Your task to perform on an android device: turn on bluetooth scan Image 0: 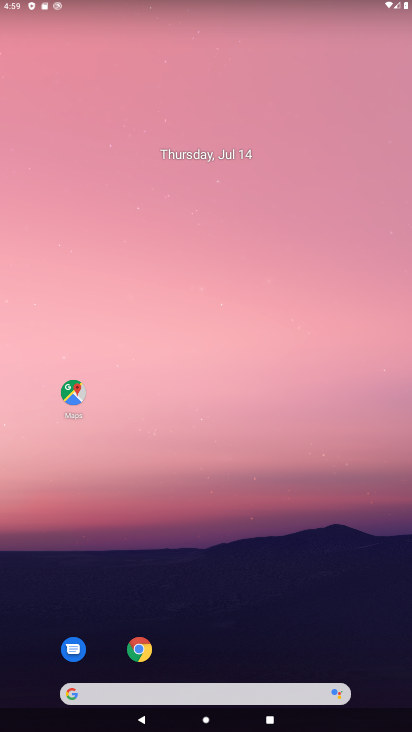
Step 0: drag from (221, 673) to (310, 66)
Your task to perform on an android device: turn on bluetooth scan Image 1: 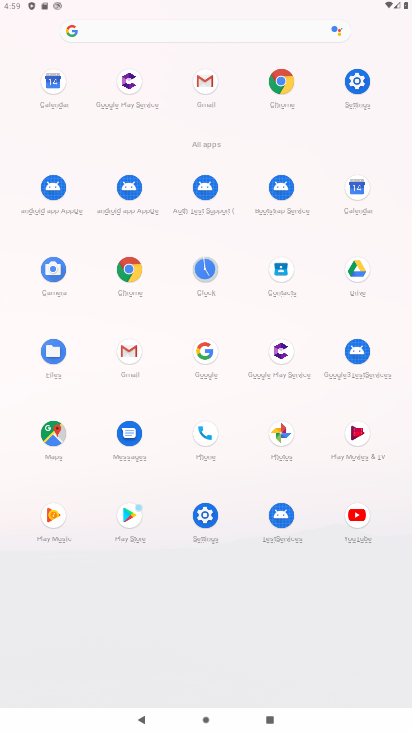
Step 1: click (351, 75)
Your task to perform on an android device: turn on bluetooth scan Image 2: 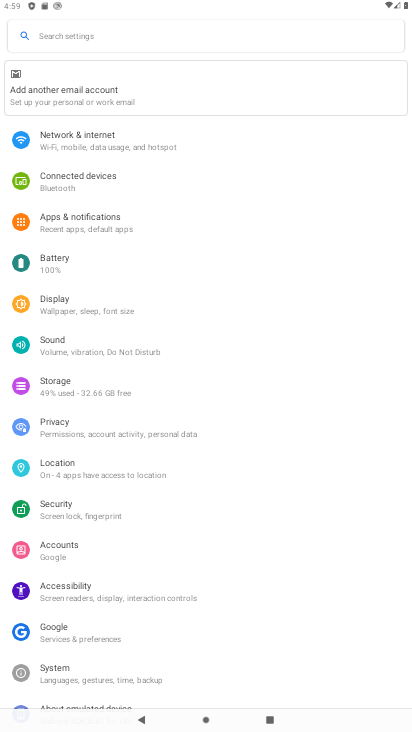
Step 2: click (90, 186)
Your task to perform on an android device: turn on bluetooth scan Image 3: 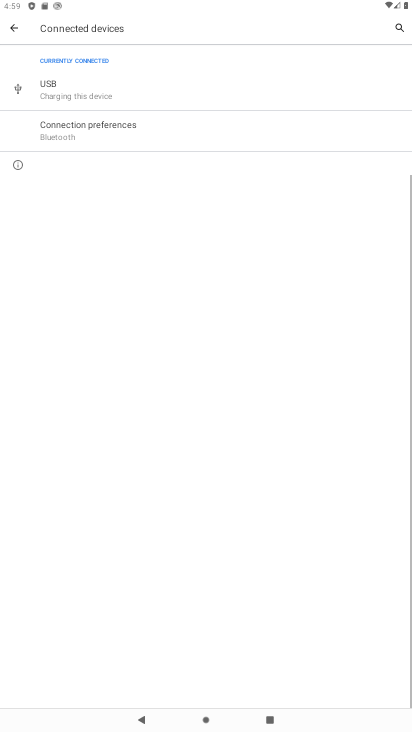
Step 3: click (88, 139)
Your task to perform on an android device: turn on bluetooth scan Image 4: 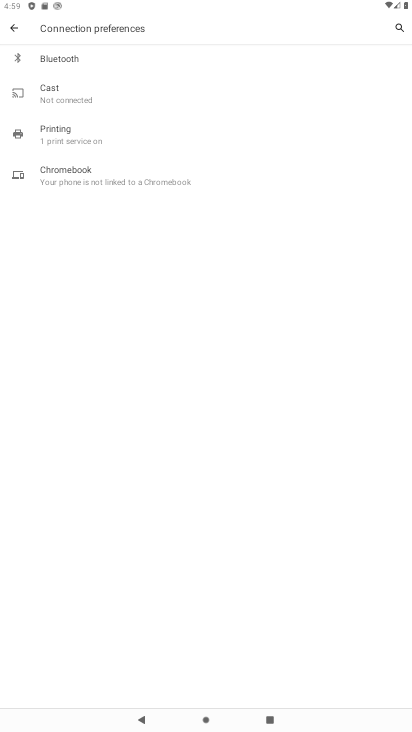
Step 4: click (80, 59)
Your task to perform on an android device: turn on bluetooth scan Image 5: 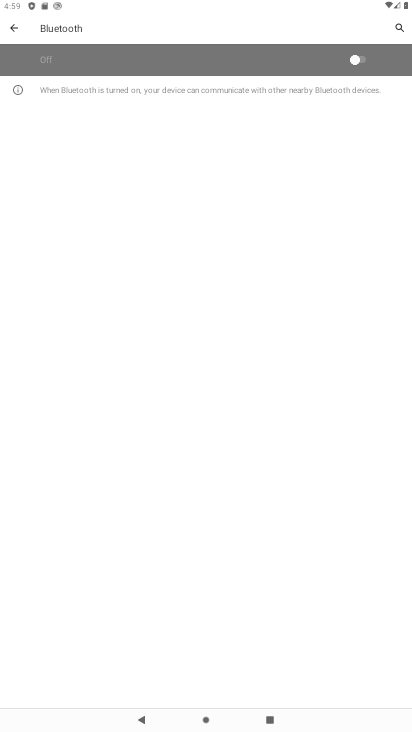
Step 5: click (356, 52)
Your task to perform on an android device: turn on bluetooth scan Image 6: 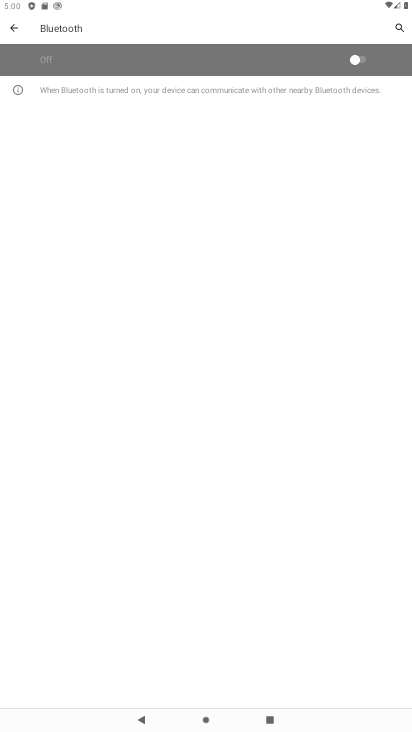
Step 6: click (361, 58)
Your task to perform on an android device: turn on bluetooth scan Image 7: 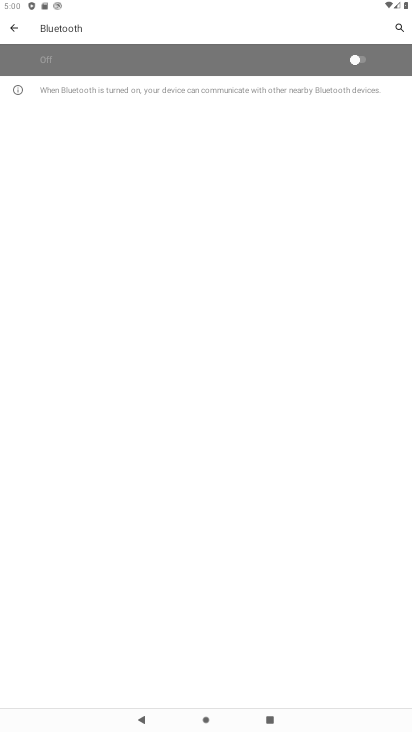
Step 7: task complete